Your task to perform on an android device: open chrome privacy settings Image 0: 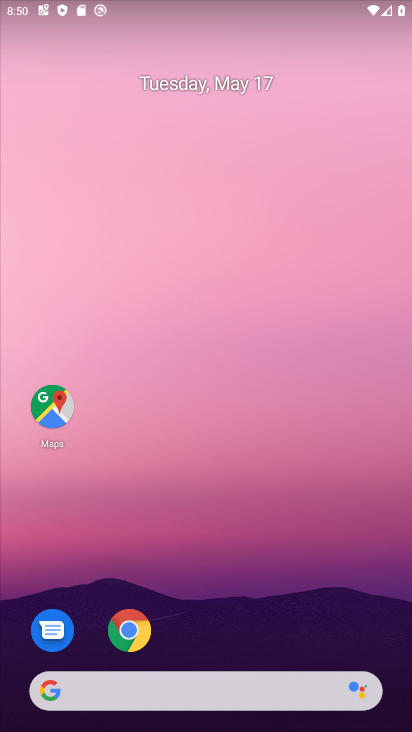
Step 0: click (124, 631)
Your task to perform on an android device: open chrome privacy settings Image 1: 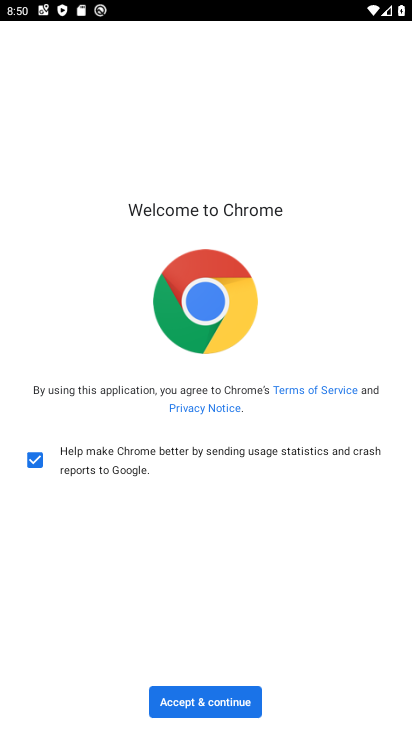
Step 1: click (238, 704)
Your task to perform on an android device: open chrome privacy settings Image 2: 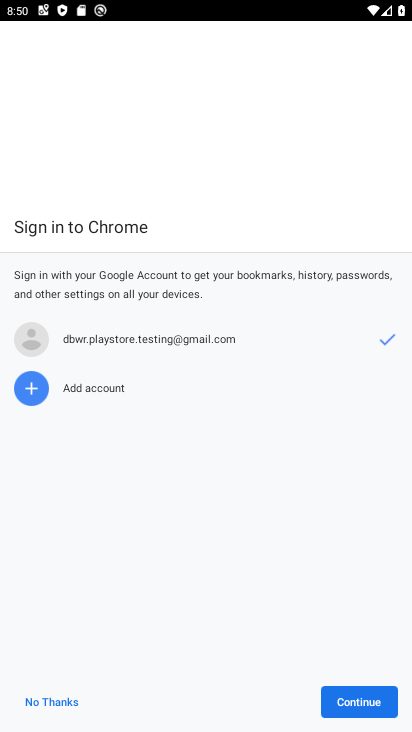
Step 2: click (339, 702)
Your task to perform on an android device: open chrome privacy settings Image 3: 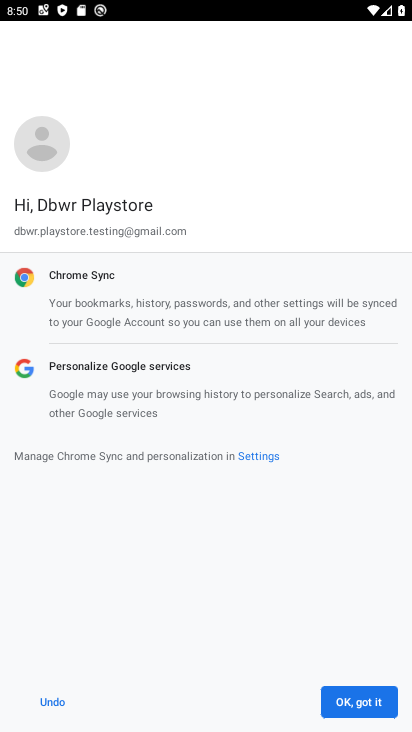
Step 3: click (339, 702)
Your task to perform on an android device: open chrome privacy settings Image 4: 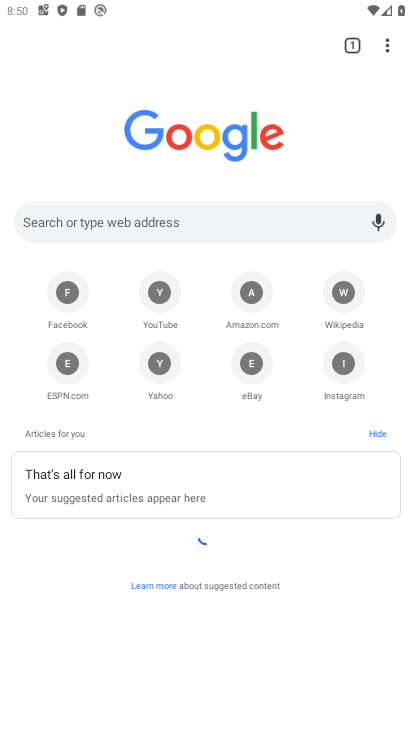
Step 4: click (388, 41)
Your task to perform on an android device: open chrome privacy settings Image 5: 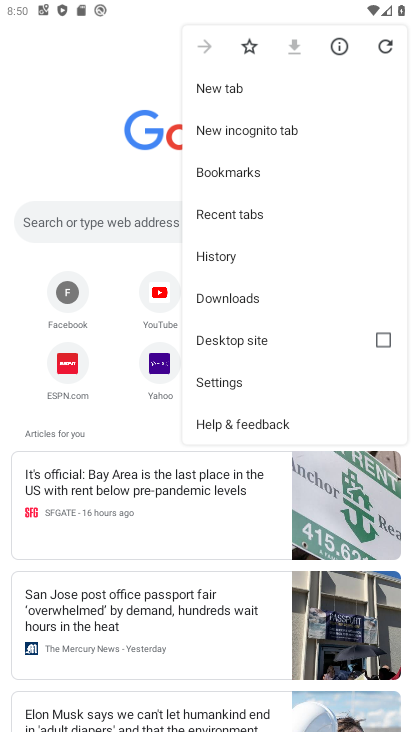
Step 5: click (226, 379)
Your task to perform on an android device: open chrome privacy settings Image 6: 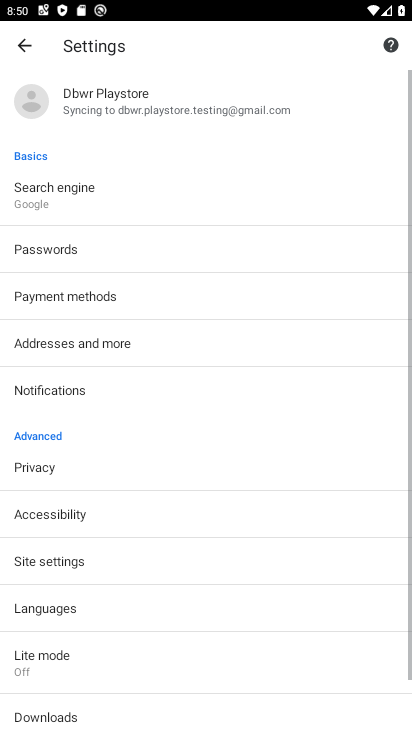
Step 6: click (38, 464)
Your task to perform on an android device: open chrome privacy settings Image 7: 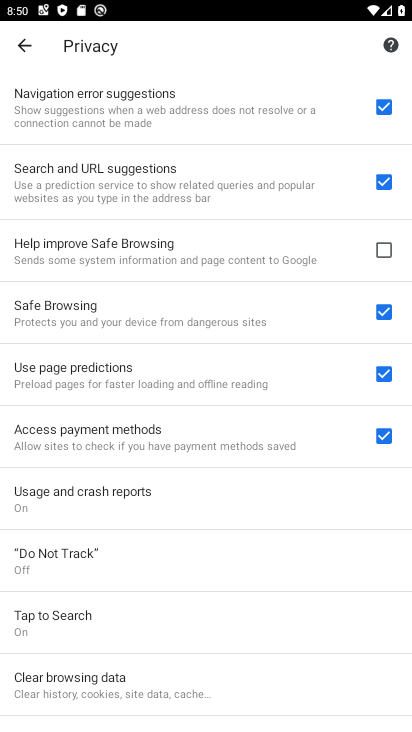
Step 7: task complete